Your task to perform on an android device: allow cookies in the chrome app Image 0: 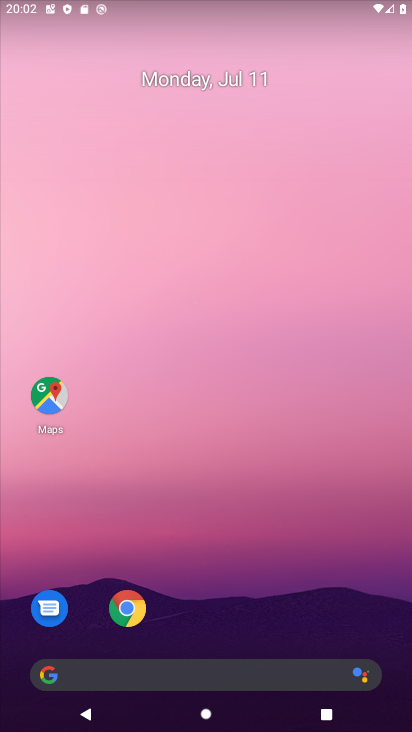
Step 0: click (139, 613)
Your task to perform on an android device: allow cookies in the chrome app Image 1: 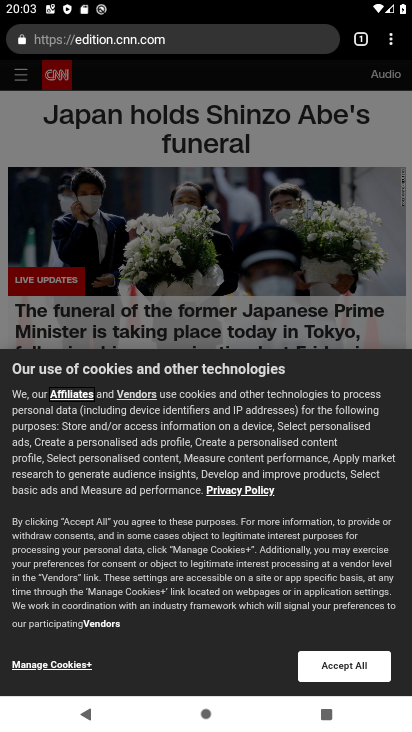
Step 1: click (384, 54)
Your task to perform on an android device: allow cookies in the chrome app Image 2: 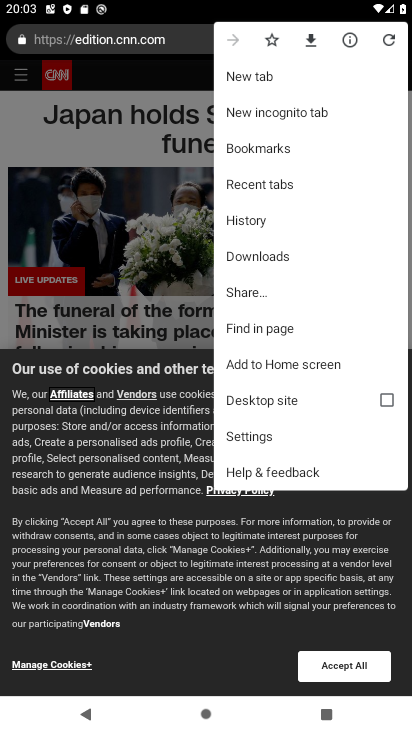
Step 2: click (285, 450)
Your task to perform on an android device: allow cookies in the chrome app Image 3: 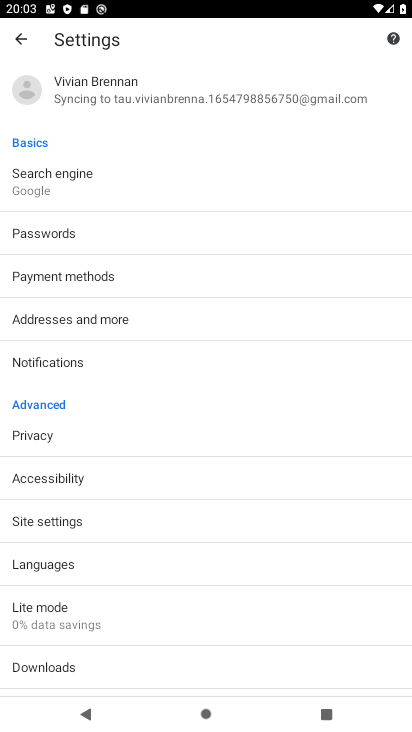
Step 3: click (158, 512)
Your task to perform on an android device: allow cookies in the chrome app Image 4: 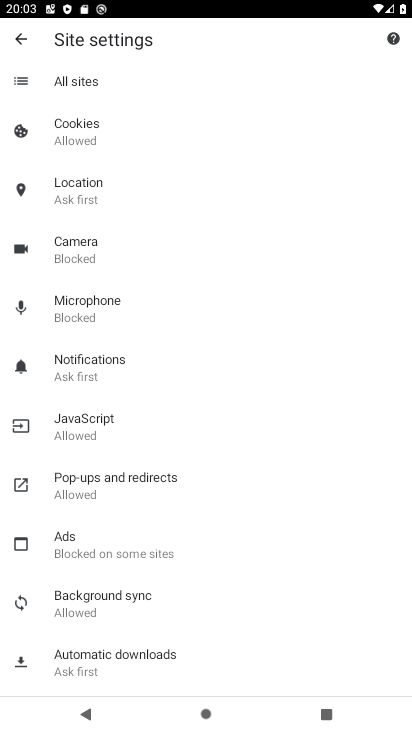
Step 4: click (188, 137)
Your task to perform on an android device: allow cookies in the chrome app Image 5: 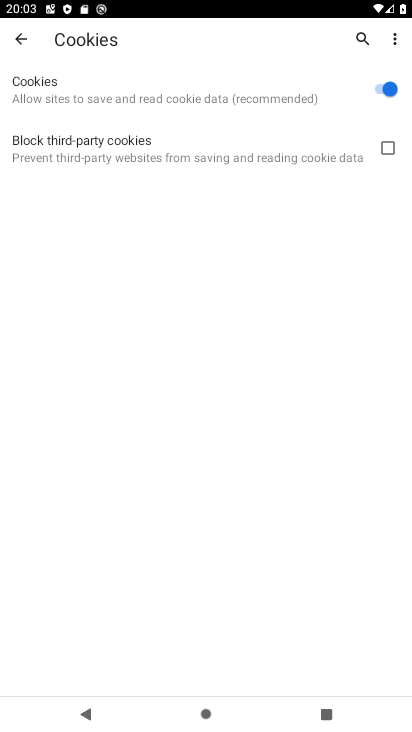
Step 5: task complete